Your task to perform on an android device: Toggle the flashlight Image 0: 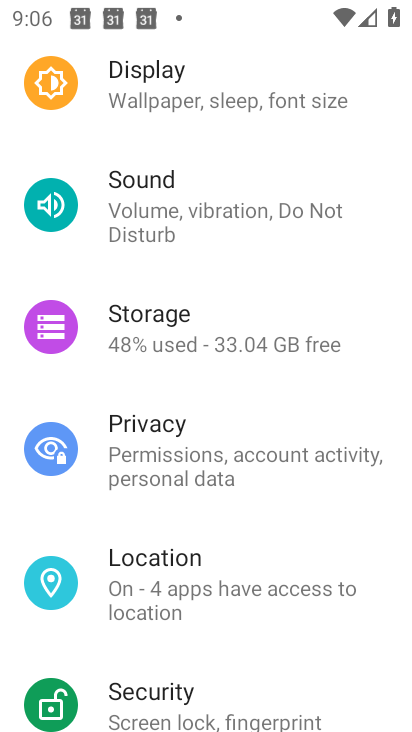
Step 0: click (254, 111)
Your task to perform on an android device: Toggle the flashlight Image 1: 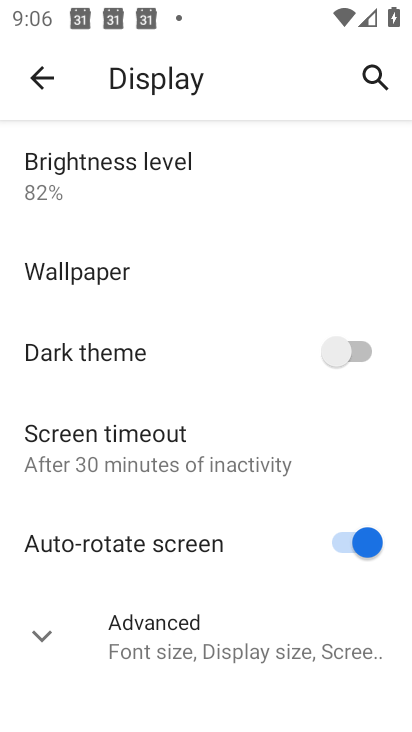
Step 1: drag from (144, 482) to (218, 316)
Your task to perform on an android device: Toggle the flashlight Image 2: 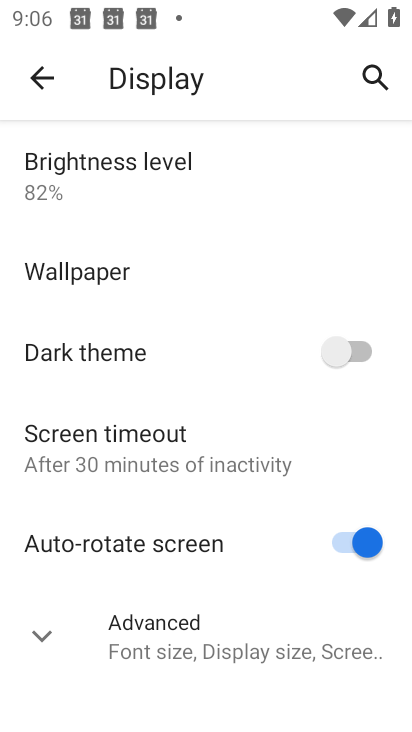
Step 2: press back button
Your task to perform on an android device: Toggle the flashlight Image 3: 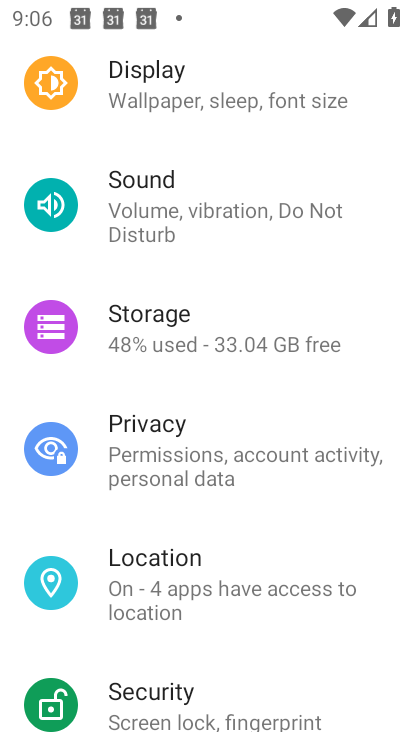
Step 3: drag from (251, 259) to (260, 408)
Your task to perform on an android device: Toggle the flashlight Image 4: 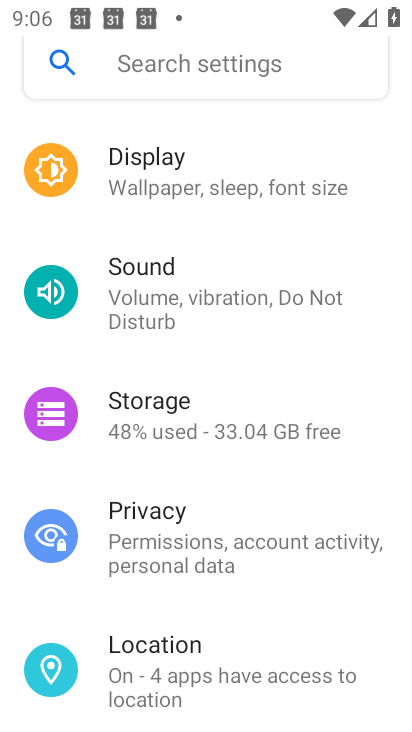
Step 4: drag from (280, 218) to (282, 432)
Your task to perform on an android device: Toggle the flashlight Image 5: 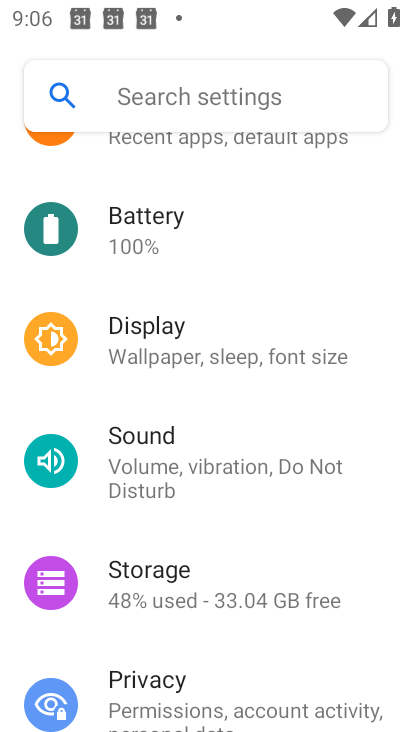
Step 5: drag from (267, 307) to (291, 462)
Your task to perform on an android device: Toggle the flashlight Image 6: 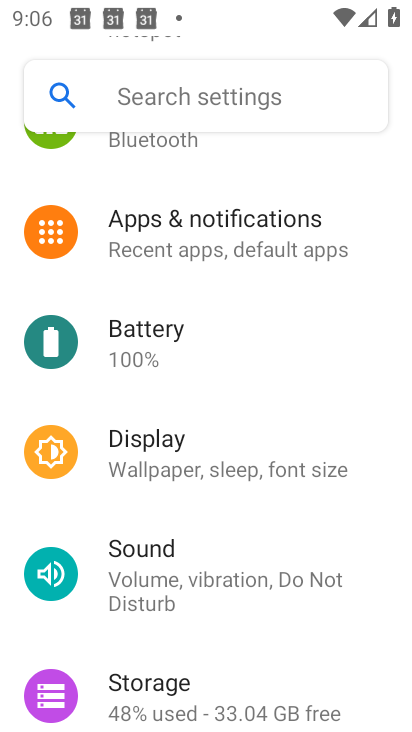
Step 6: drag from (263, 233) to (273, 416)
Your task to perform on an android device: Toggle the flashlight Image 7: 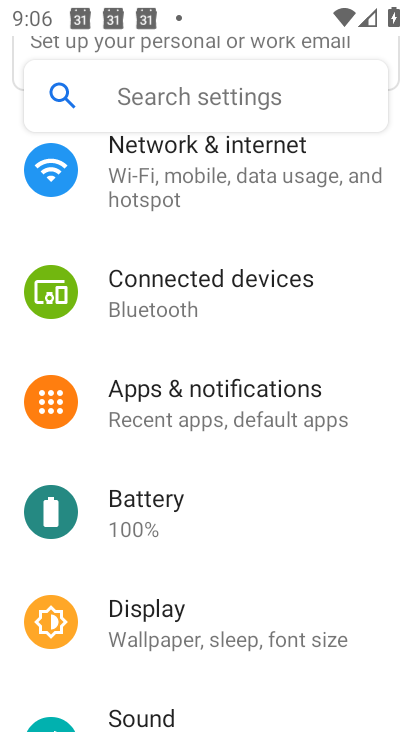
Step 7: drag from (225, 571) to (306, 332)
Your task to perform on an android device: Toggle the flashlight Image 8: 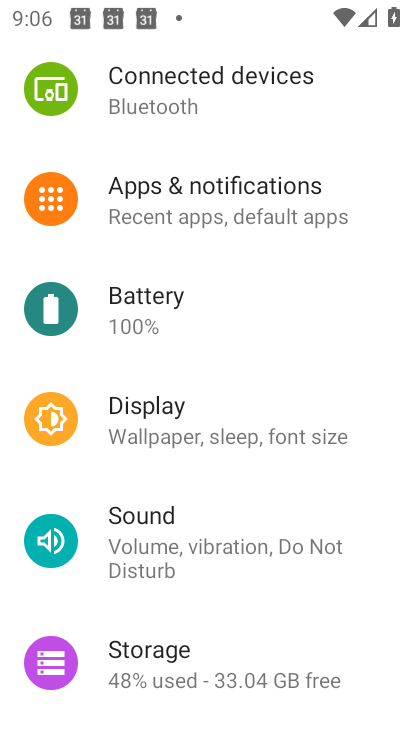
Step 8: click (211, 532)
Your task to perform on an android device: Toggle the flashlight Image 9: 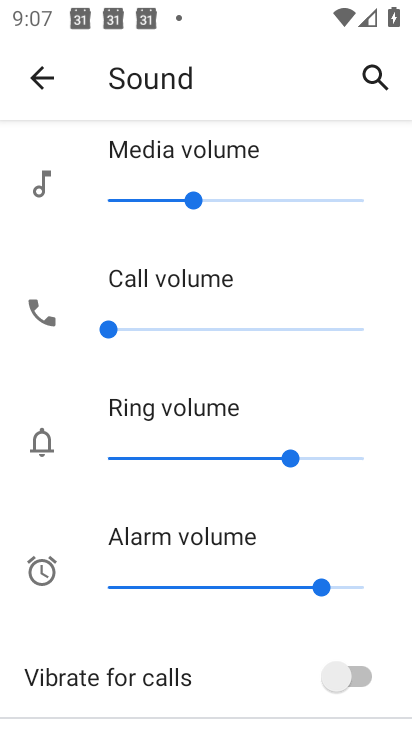
Step 9: task complete